Your task to perform on an android device: Play the last video I watched on Youtube Image 0: 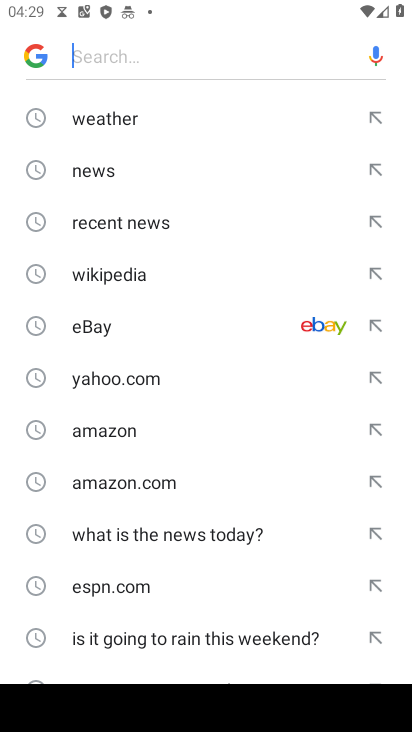
Step 0: press back button
Your task to perform on an android device: Play the last video I watched on Youtube Image 1: 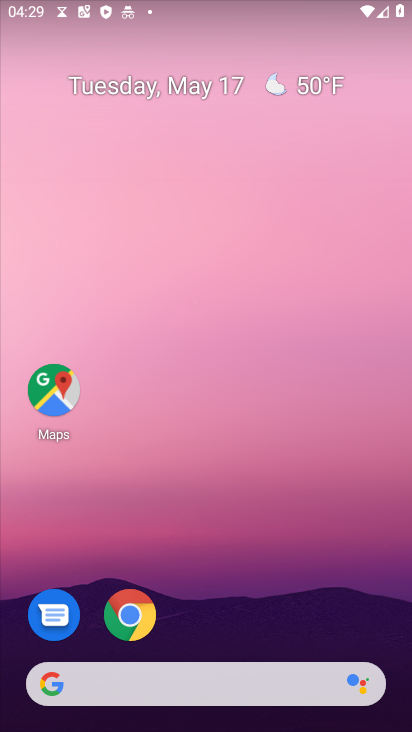
Step 1: drag from (356, 701) to (250, 132)
Your task to perform on an android device: Play the last video I watched on Youtube Image 2: 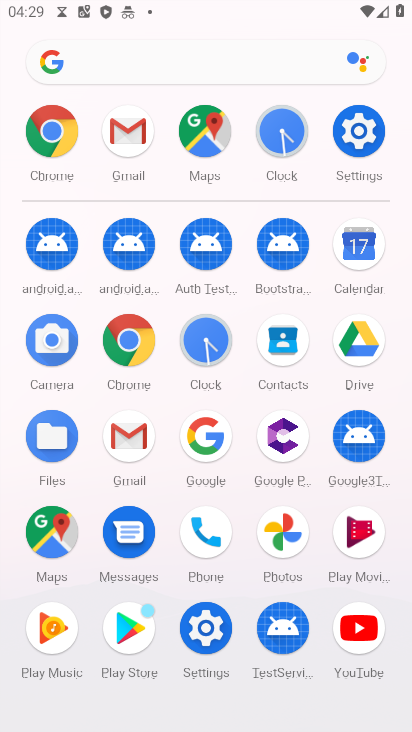
Step 2: click (368, 626)
Your task to perform on an android device: Play the last video I watched on Youtube Image 3: 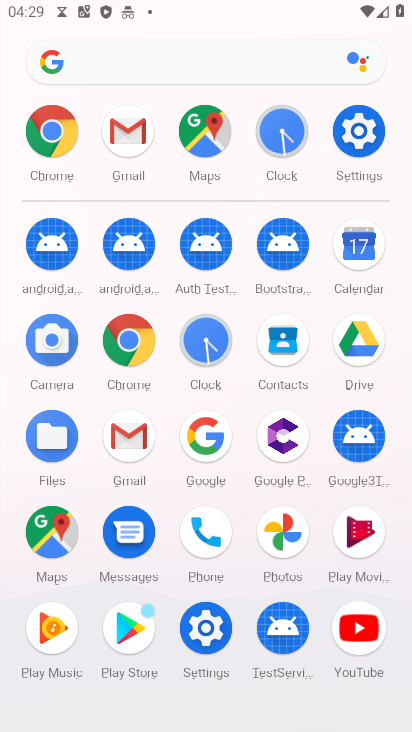
Step 3: click (367, 627)
Your task to perform on an android device: Play the last video I watched on Youtube Image 4: 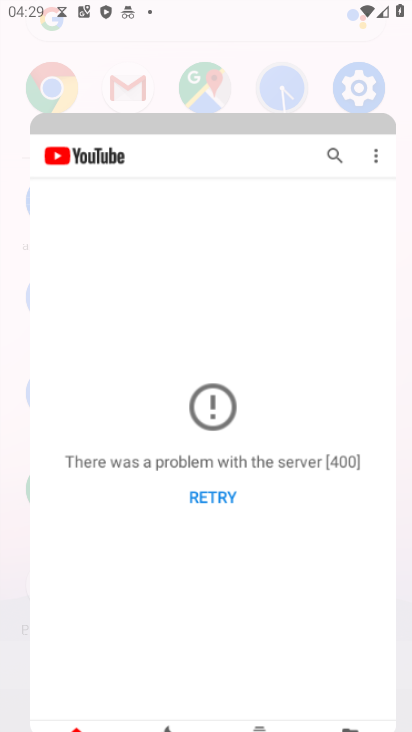
Step 4: click (367, 627)
Your task to perform on an android device: Play the last video I watched on Youtube Image 5: 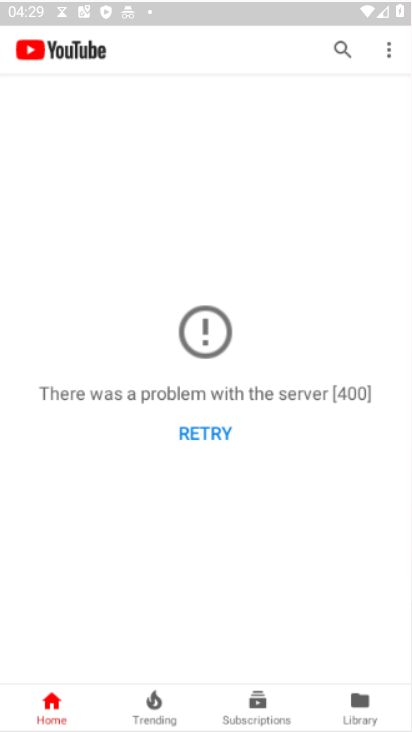
Step 5: click (367, 627)
Your task to perform on an android device: Play the last video I watched on Youtube Image 6: 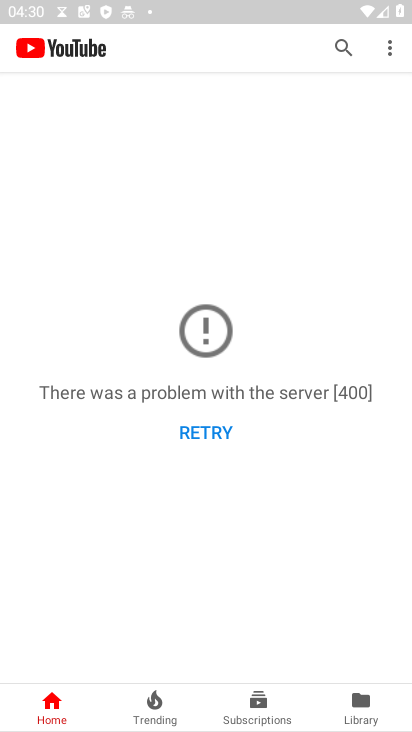
Step 6: task complete